Your task to perform on an android device: turn pop-ups off in chrome Image 0: 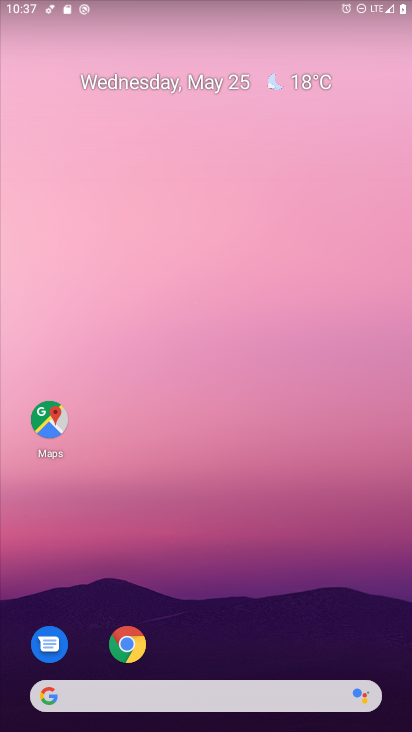
Step 0: press home button
Your task to perform on an android device: turn pop-ups off in chrome Image 1: 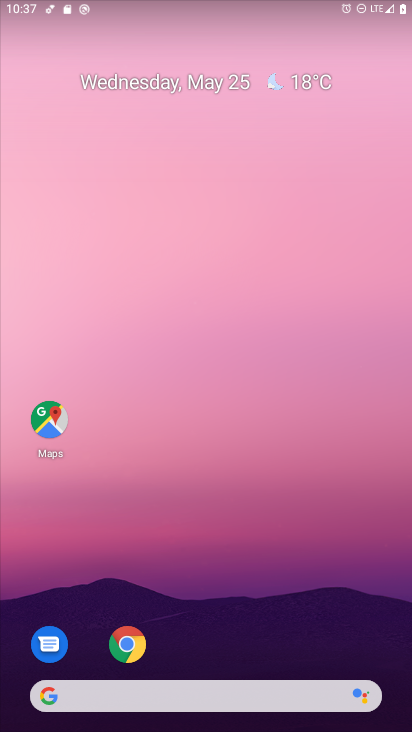
Step 1: click (124, 640)
Your task to perform on an android device: turn pop-ups off in chrome Image 2: 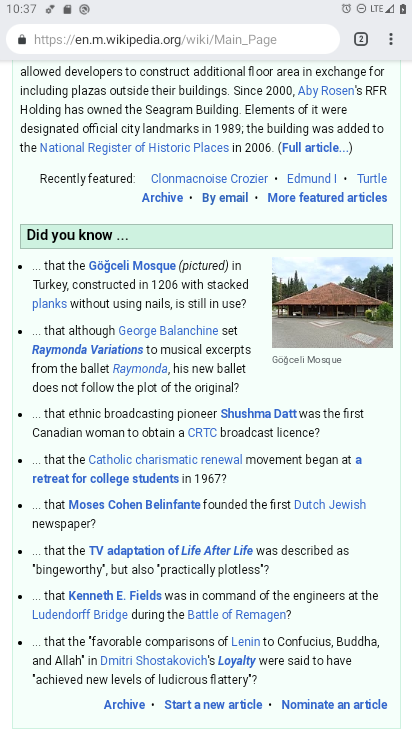
Step 2: click (388, 36)
Your task to perform on an android device: turn pop-ups off in chrome Image 3: 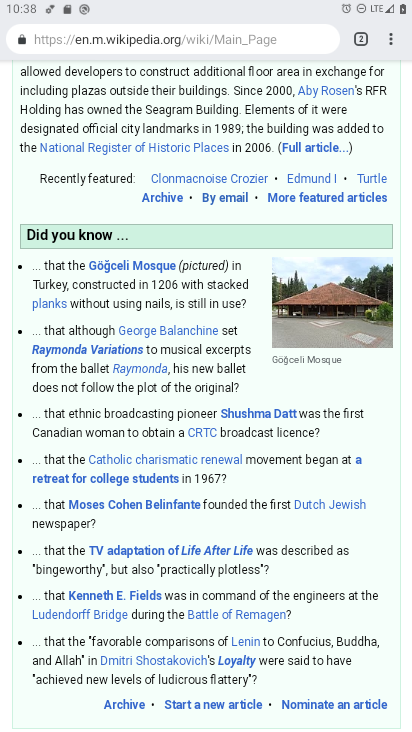
Step 3: click (387, 34)
Your task to perform on an android device: turn pop-ups off in chrome Image 4: 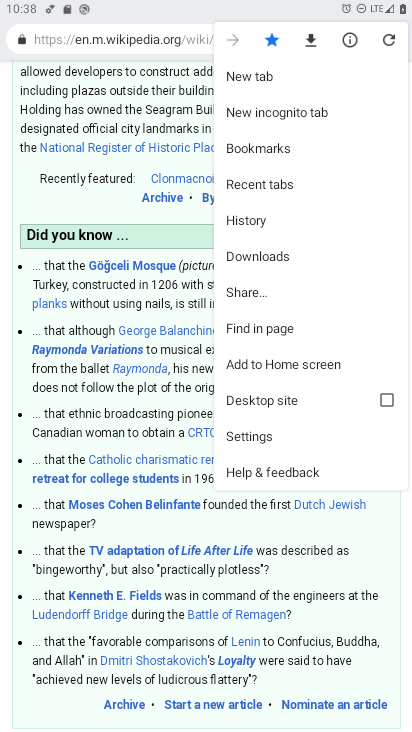
Step 4: click (279, 430)
Your task to perform on an android device: turn pop-ups off in chrome Image 5: 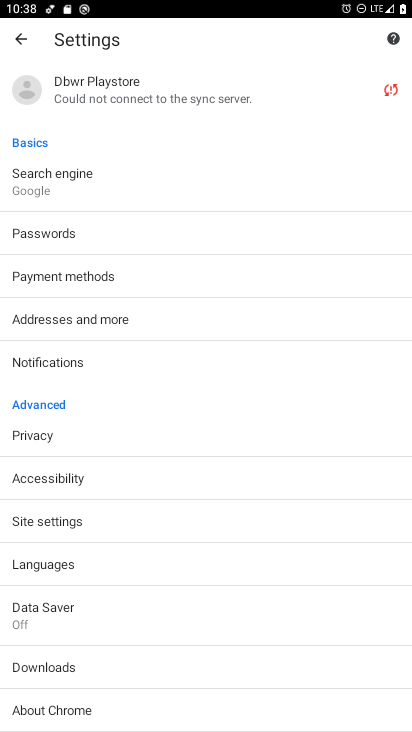
Step 5: drag from (107, 657) to (143, 123)
Your task to perform on an android device: turn pop-ups off in chrome Image 6: 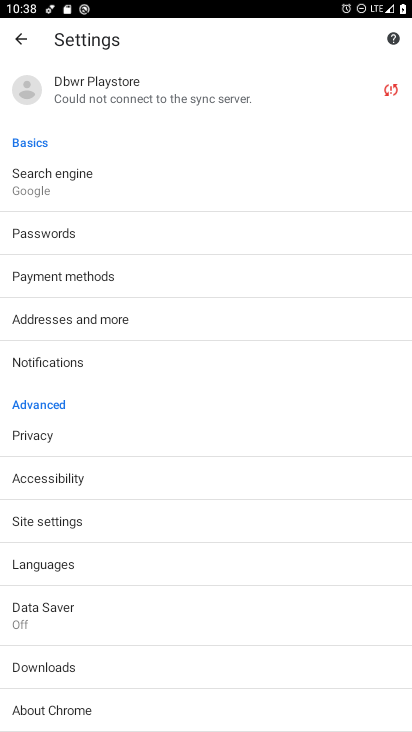
Step 6: click (97, 523)
Your task to perform on an android device: turn pop-ups off in chrome Image 7: 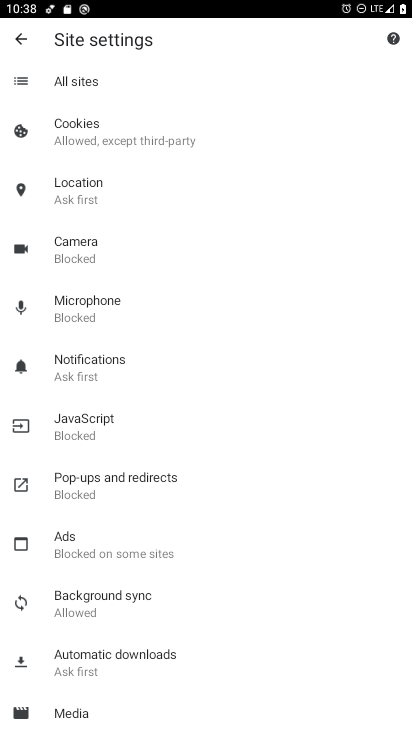
Step 7: click (151, 486)
Your task to perform on an android device: turn pop-ups off in chrome Image 8: 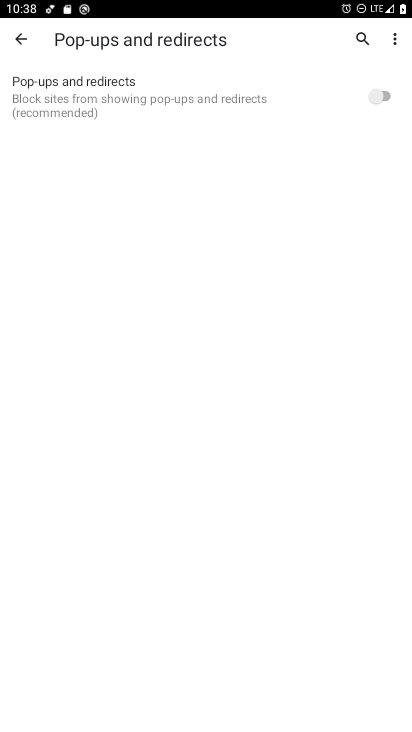
Step 8: task complete